Your task to perform on an android device: open wifi settings Image 0: 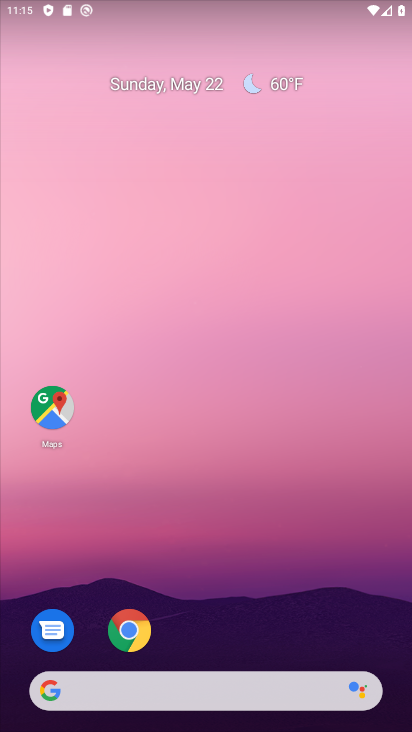
Step 0: drag from (245, 595) to (180, 134)
Your task to perform on an android device: open wifi settings Image 1: 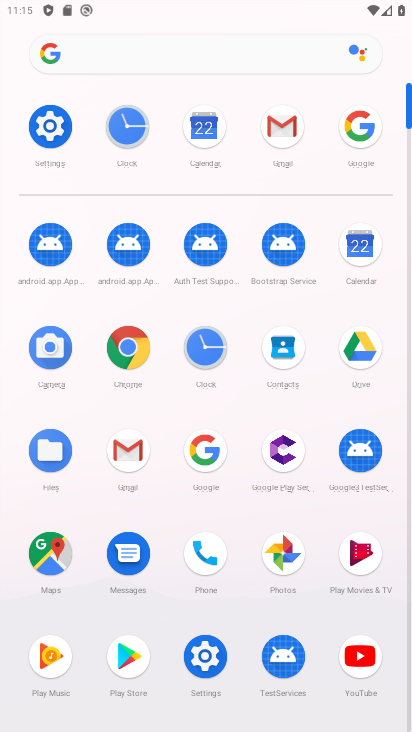
Step 1: click (49, 125)
Your task to perform on an android device: open wifi settings Image 2: 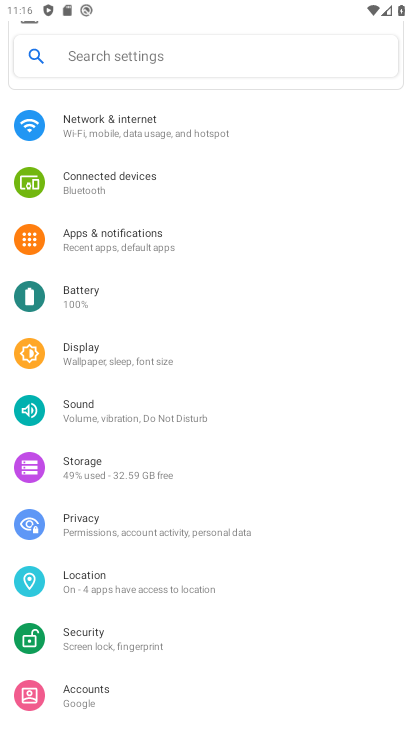
Step 2: click (118, 138)
Your task to perform on an android device: open wifi settings Image 3: 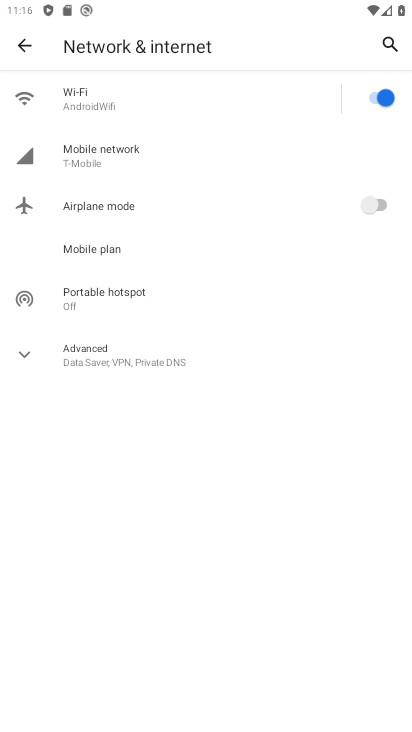
Step 3: click (76, 105)
Your task to perform on an android device: open wifi settings Image 4: 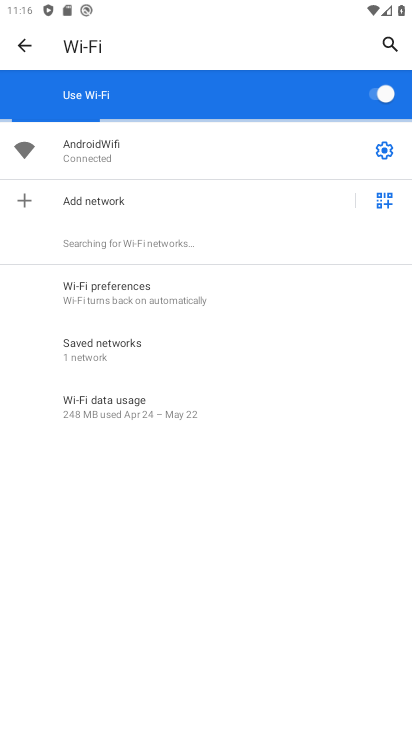
Step 4: click (385, 143)
Your task to perform on an android device: open wifi settings Image 5: 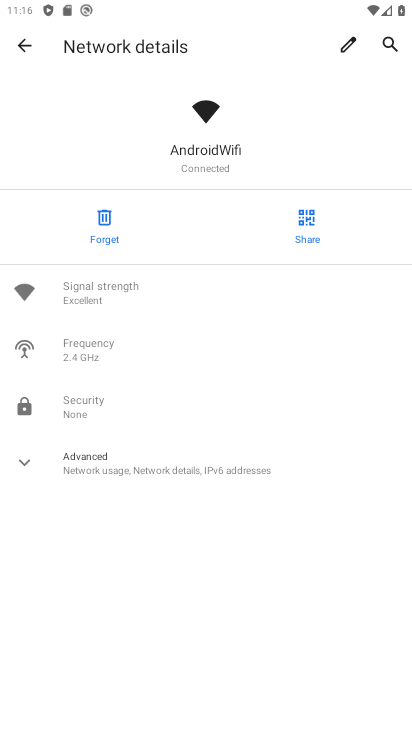
Step 5: task complete